Your task to perform on an android device: toggle pop-ups in chrome Image 0: 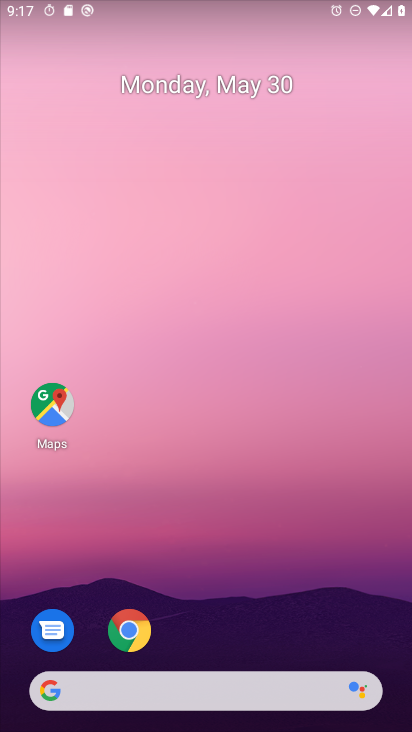
Step 0: drag from (332, 636) to (278, 28)
Your task to perform on an android device: toggle pop-ups in chrome Image 1: 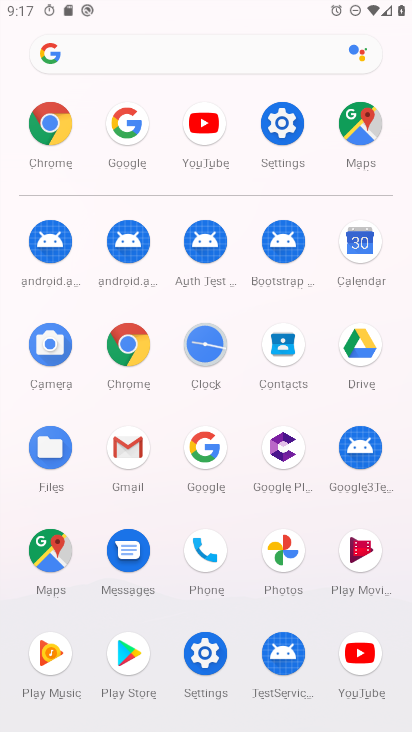
Step 1: click (66, 119)
Your task to perform on an android device: toggle pop-ups in chrome Image 2: 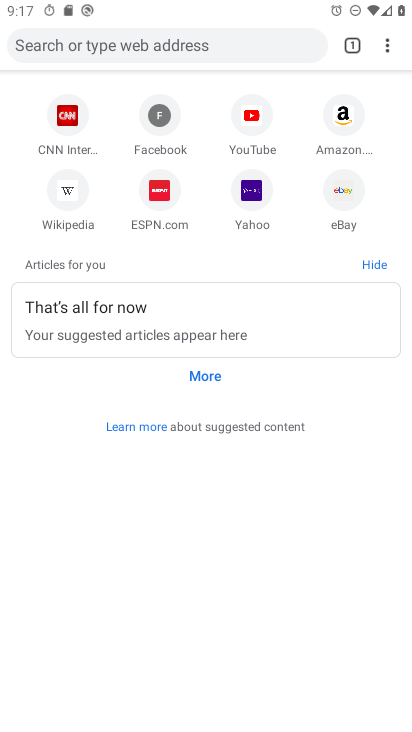
Step 2: click (386, 38)
Your task to perform on an android device: toggle pop-ups in chrome Image 3: 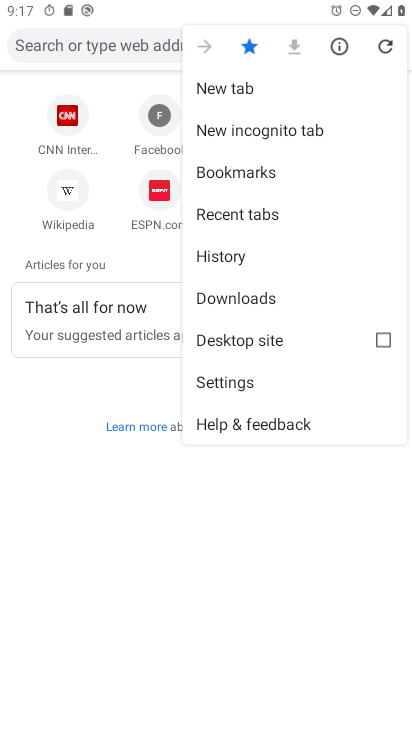
Step 3: click (222, 384)
Your task to perform on an android device: toggle pop-ups in chrome Image 4: 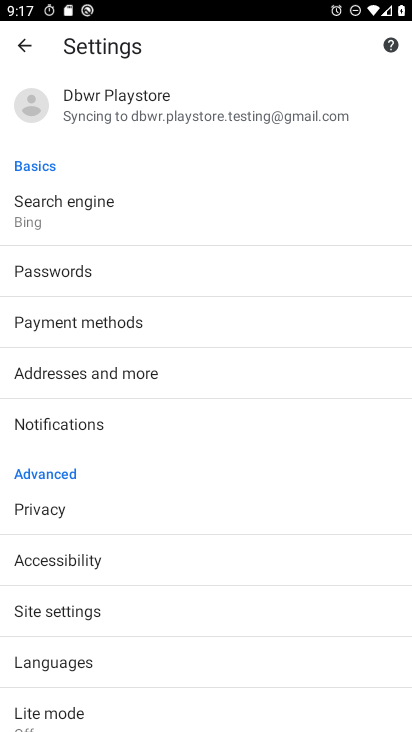
Step 4: click (136, 613)
Your task to perform on an android device: toggle pop-ups in chrome Image 5: 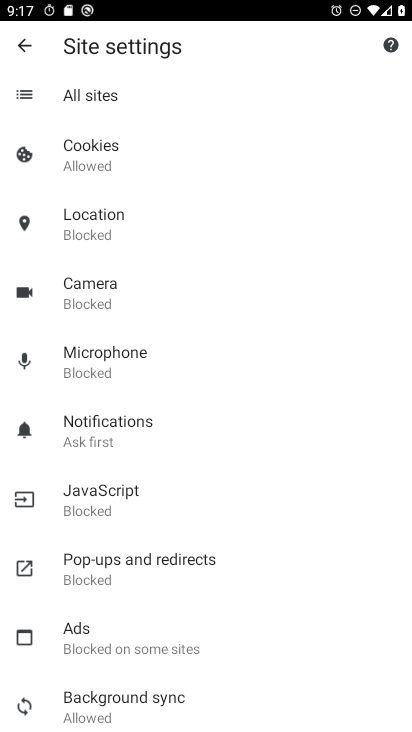
Step 5: click (139, 562)
Your task to perform on an android device: toggle pop-ups in chrome Image 6: 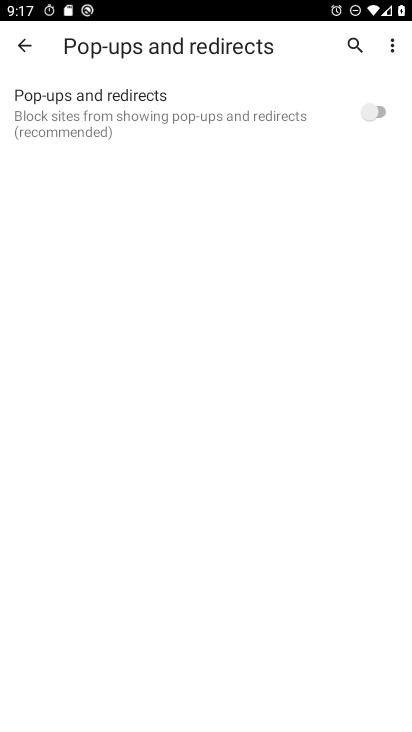
Step 6: click (355, 111)
Your task to perform on an android device: toggle pop-ups in chrome Image 7: 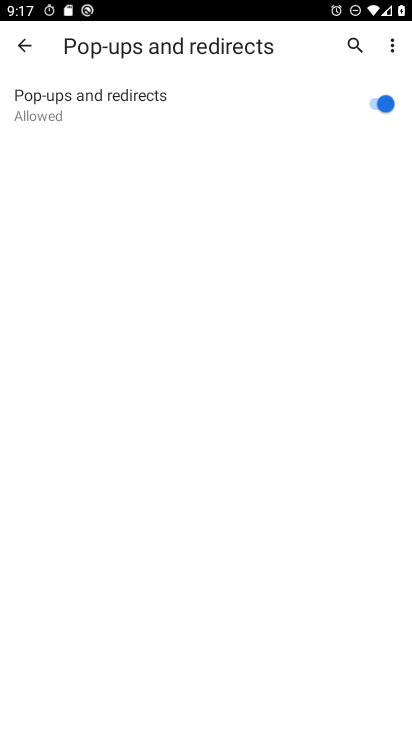
Step 7: task complete